Your task to perform on an android device: Search for Italian restaurants on Maps Image 0: 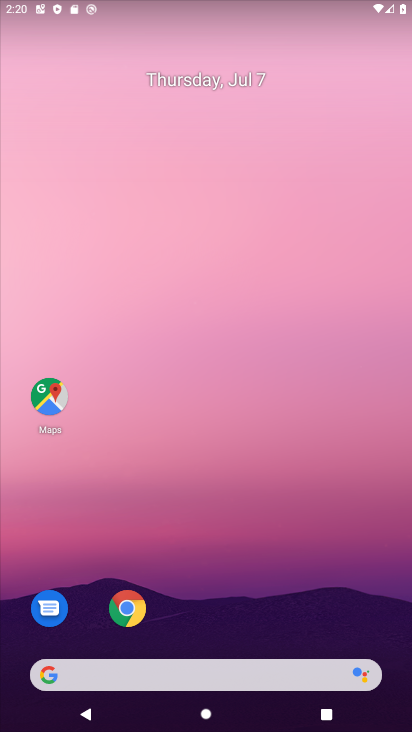
Step 0: click (50, 399)
Your task to perform on an android device: Search for Italian restaurants on Maps Image 1: 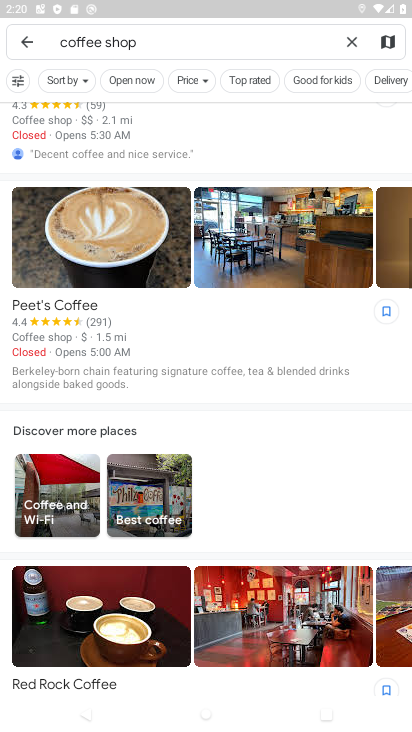
Step 1: click (347, 39)
Your task to perform on an android device: Search for Italian restaurants on Maps Image 2: 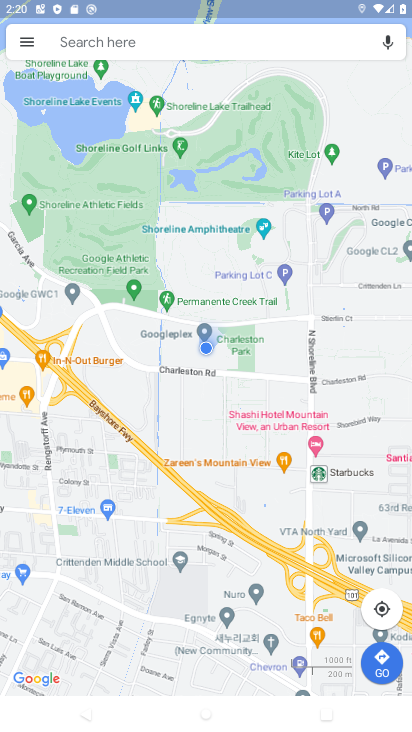
Step 2: click (130, 43)
Your task to perform on an android device: Search for Italian restaurants on Maps Image 3: 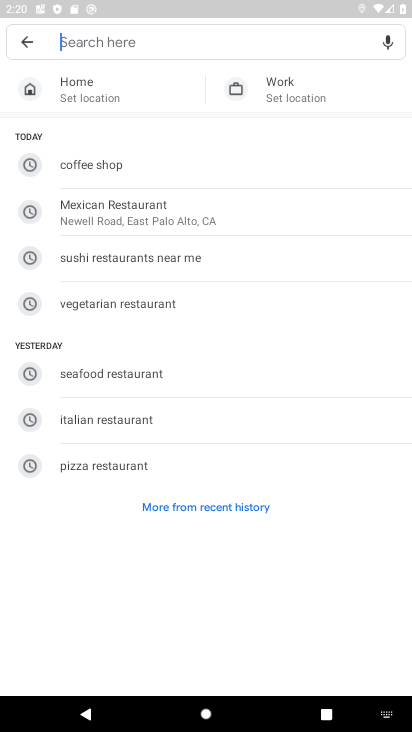
Step 3: type "italian restaurants"
Your task to perform on an android device: Search for Italian restaurants on Maps Image 4: 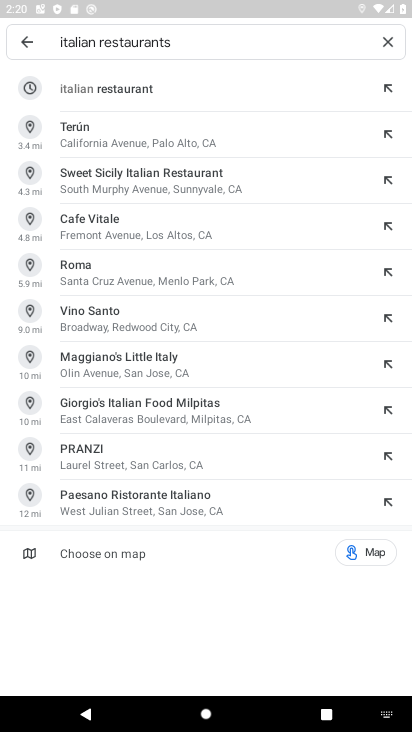
Step 4: click (102, 90)
Your task to perform on an android device: Search for Italian restaurants on Maps Image 5: 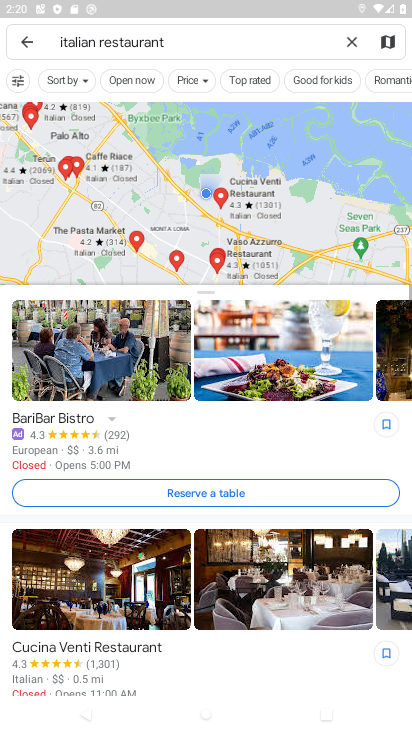
Step 5: task complete